Your task to perform on an android device: set the timer Image 0: 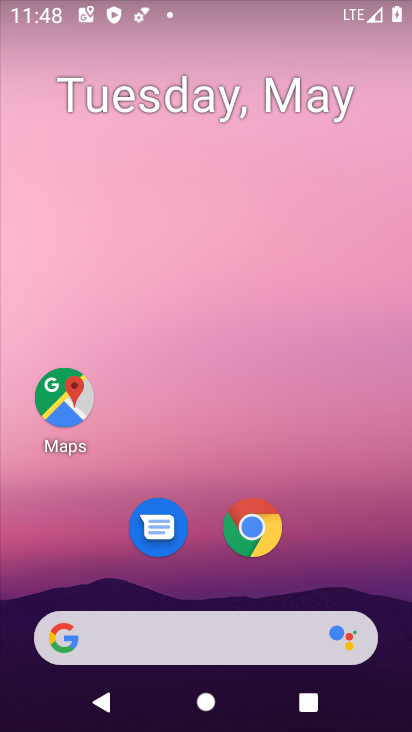
Step 0: drag from (167, 646) to (120, 172)
Your task to perform on an android device: set the timer Image 1: 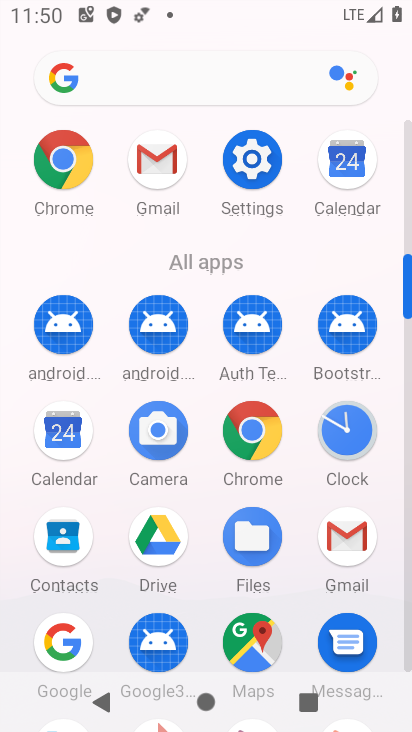
Step 1: click (275, 422)
Your task to perform on an android device: set the timer Image 2: 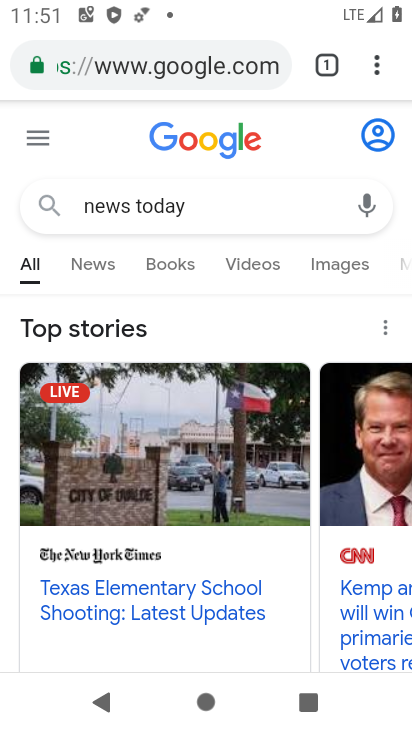
Step 2: press home button
Your task to perform on an android device: set the timer Image 3: 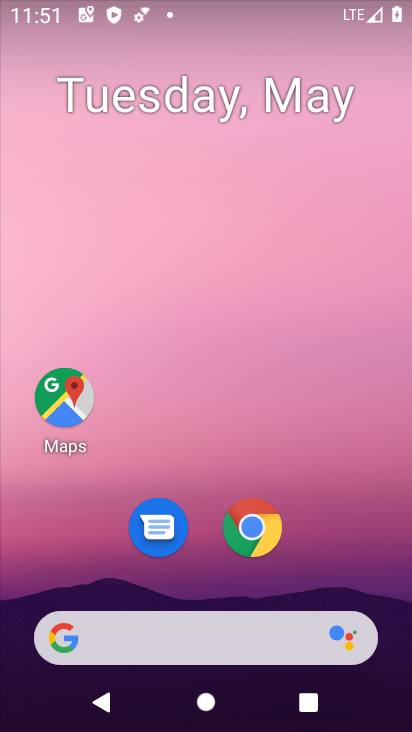
Step 3: drag from (255, 635) to (155, 22)
Your task to perform on an android device: set the timer Image 4: 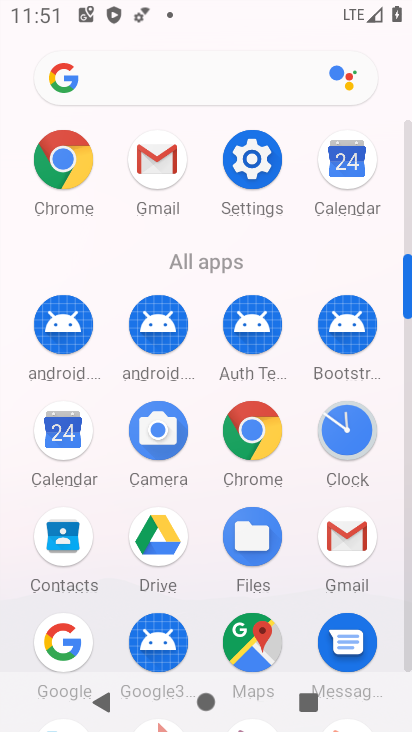
Step 4: drag from (271, 642) to (245, 263)
Your task to perform on an android device: set the timer Image 5: 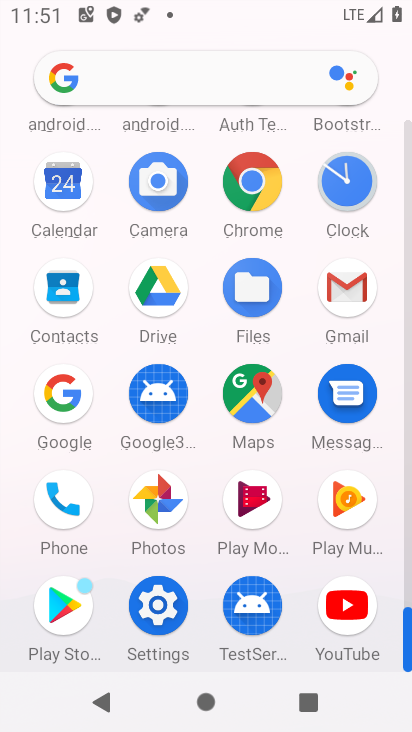
Step 5: click (191, 441)
Your task to perform on an android device: set the timer Image 6: 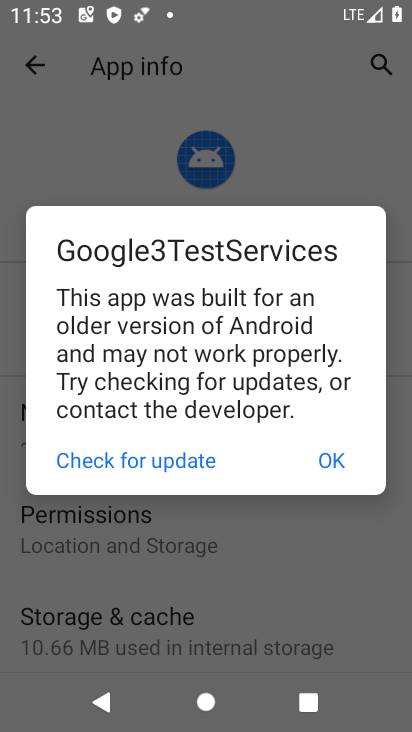
Step 6: press home button
Your task to perform on an android device: set the timer Image 7: 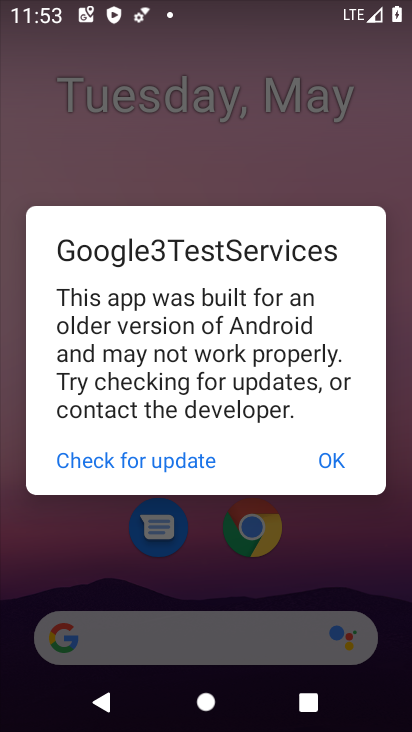
Step 7: press home button
Your task to perform on an android device: set the timer Image 8: 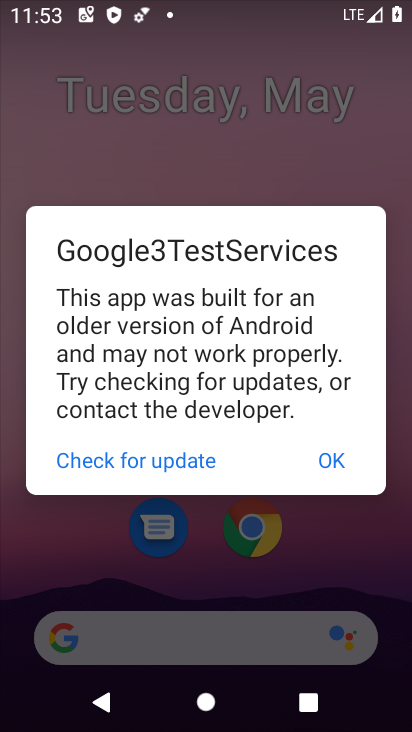
Step 8: drag from (304, 634) to (277, 0)
Your task to perform on an android device: set the timer Image 9: 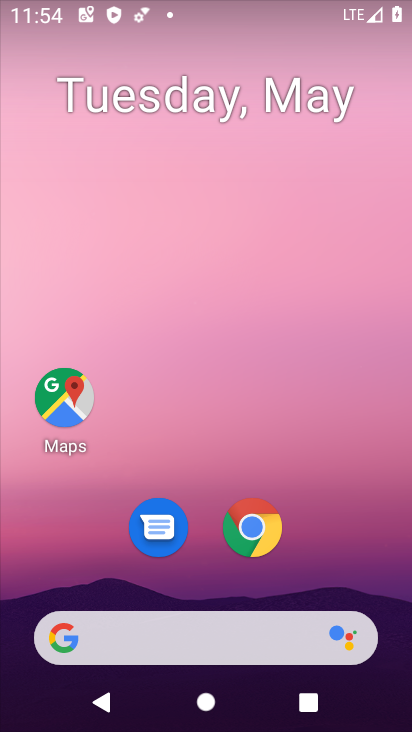
Step 9: drag from (318, 623) to (354, 4)
Your task to perform on an android device: set the timer Image 10: 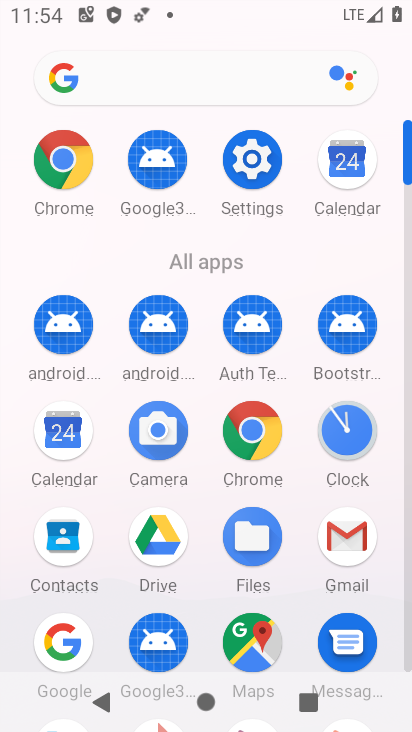
Step 10: click (331, 429)
Your task to perform on an android device: set the timer Image 11: 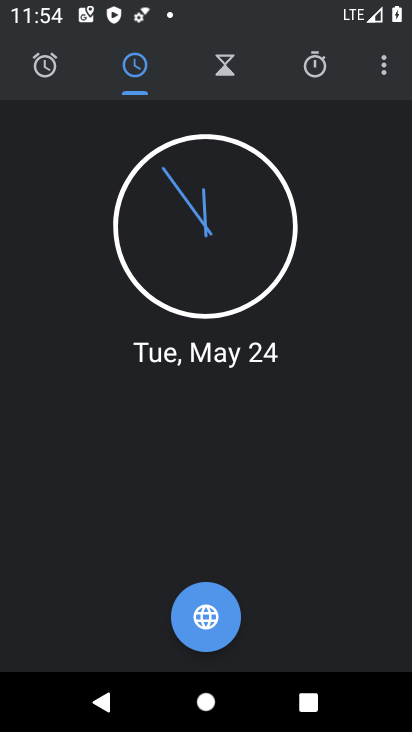
Step 11: click (245, 68)
Your task to perform on an android device: set the timer Image 12: 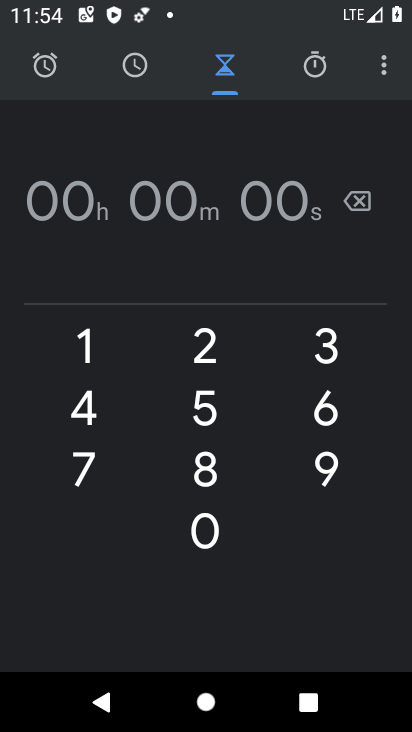
Step 12: task complete